Your task to perform on an android device: turn on priority inbox in the gmail app Image 0: 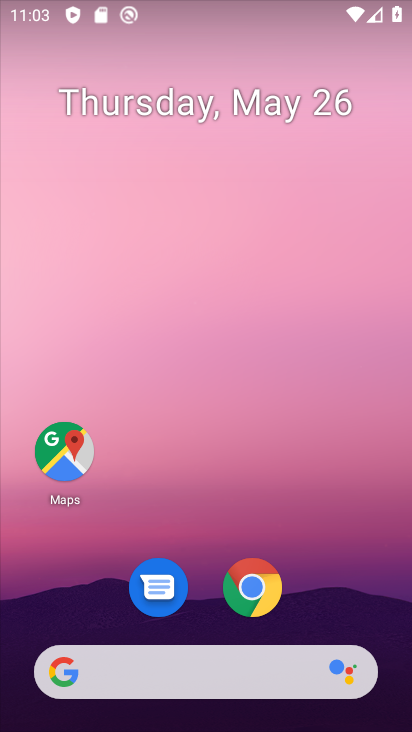
Step 0: press home button
Your task to perform on an android device: turn on priority inbox in the gmail app Image 1: 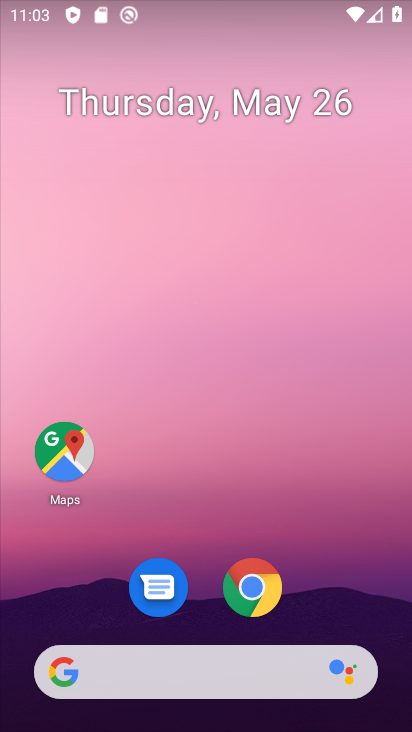
Step 1: drag from (275, 616) to (363, 91)
Your task to perform on an android device: turn on priority inbox in the gmail app Image 2: 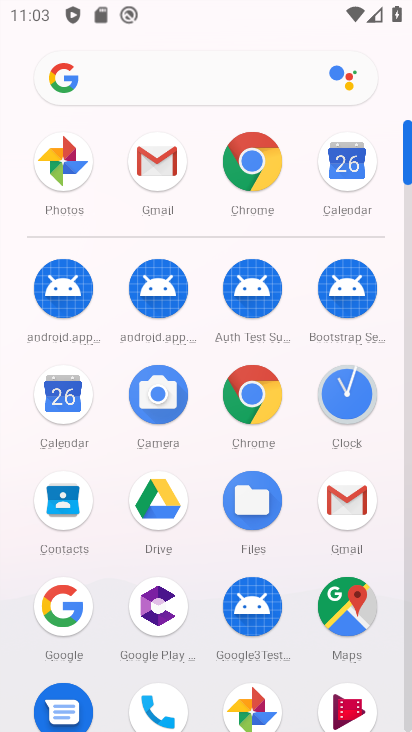
Step 2: click (177, 171)
Your task to perform on an android device: turn on priority inbox in the gmail app Image 3: 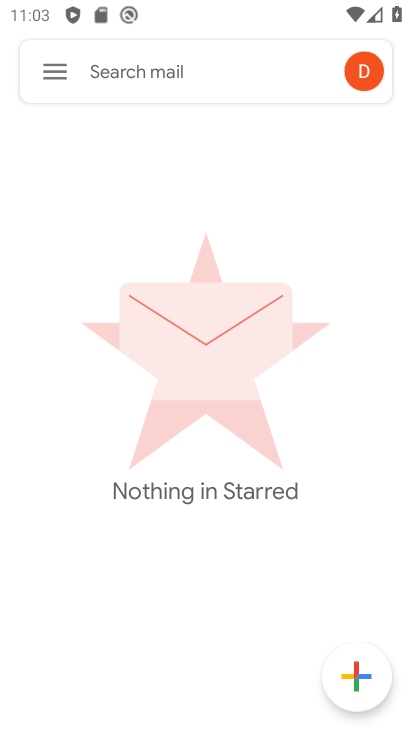
Step 3: click (73, 89)
Your task to perform on an android device: turn on priority inbox in the gmail app Image 4: 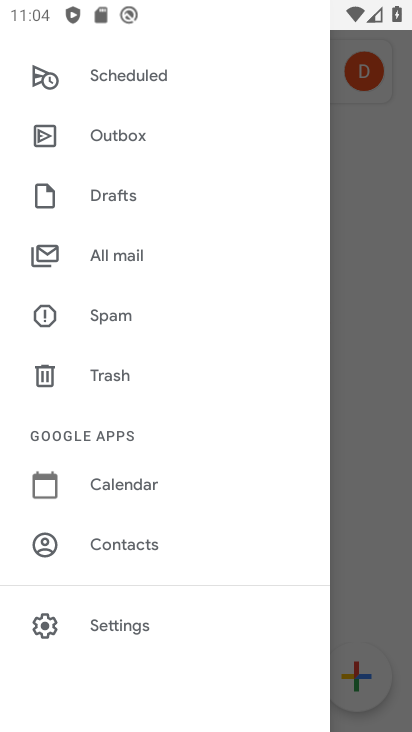
Step 4: click (98, 625)
Your task to perform on an android device: turn on priority inbox in the gmail app Image 5: 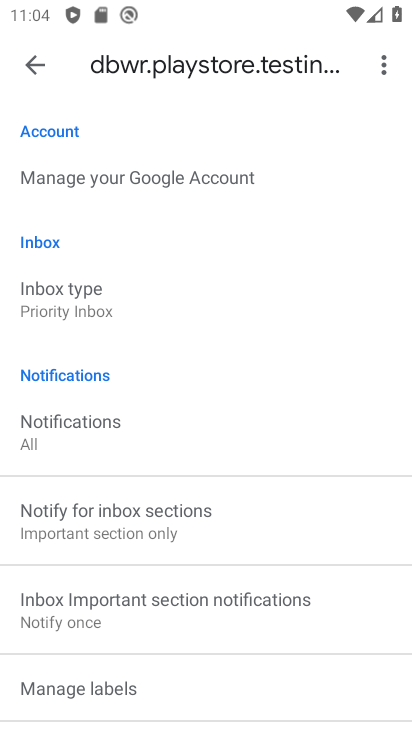
Step 5: click (94, 292)
Your task to perform on an android device: turn on priority inbox in the gmail app Image 6: 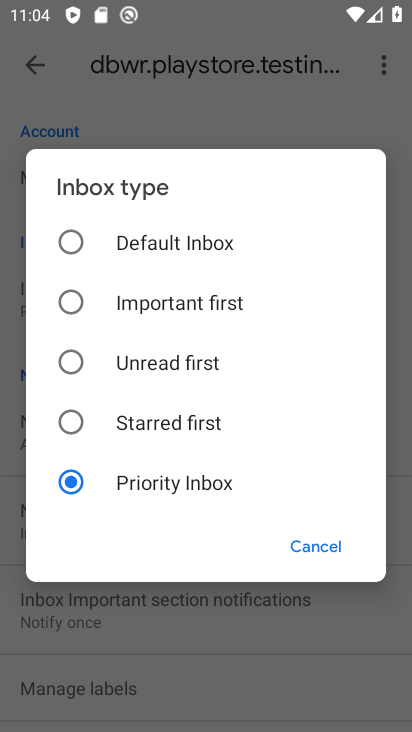
Step 6: task complete